Your task to perform on an android device: Go to Amazon Image 0: 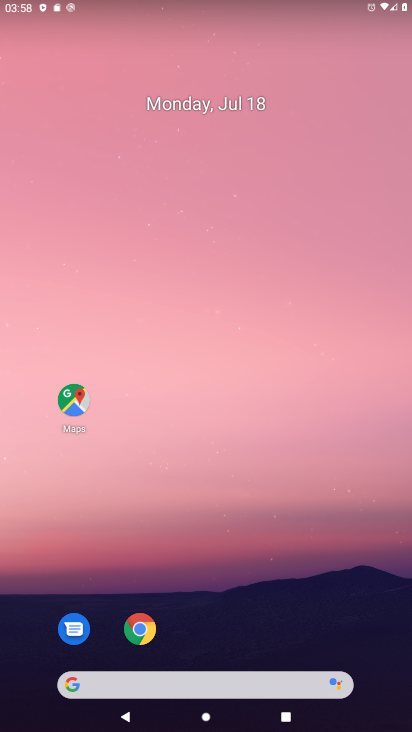
Step 0: click (135, 622)
Your task to perform on an android device: Go to Amazon Image 1: 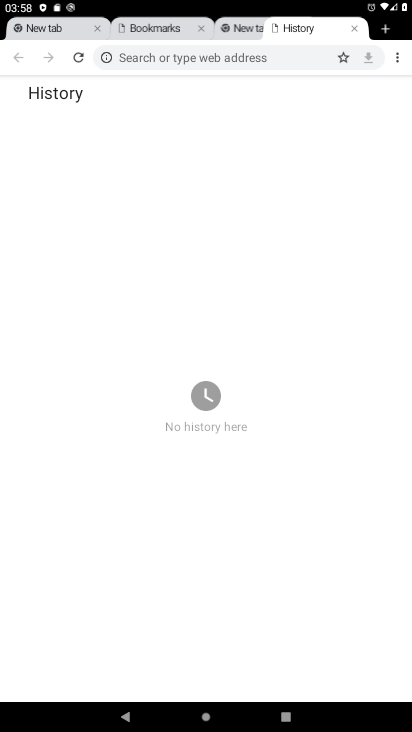
Step 1: click (393, 55)
Your task to perform on an android device: Go to Amazon Image 2: 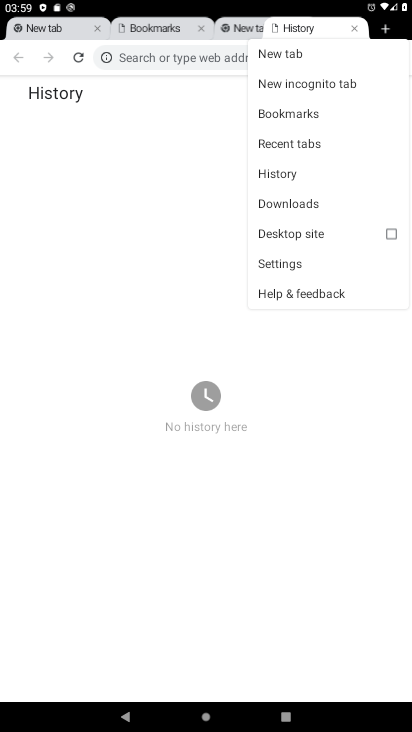
Step 2: click (177, 61)
Your task to perform on an android device: Go to Amazon Image 3: 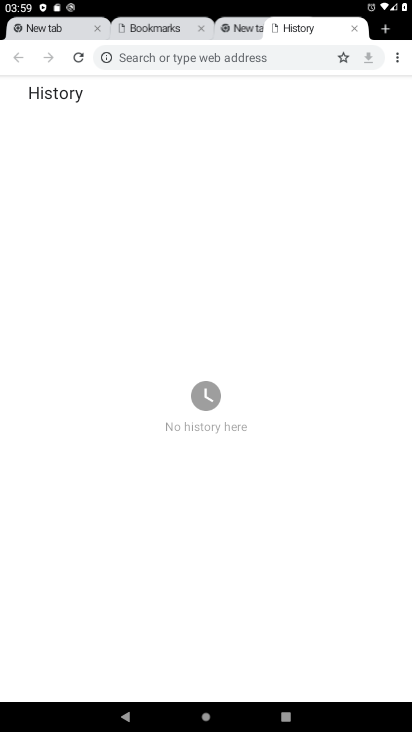
Step 3: click (180, 54)
Your task to perform on an android device: Go to Amazon Image 4: 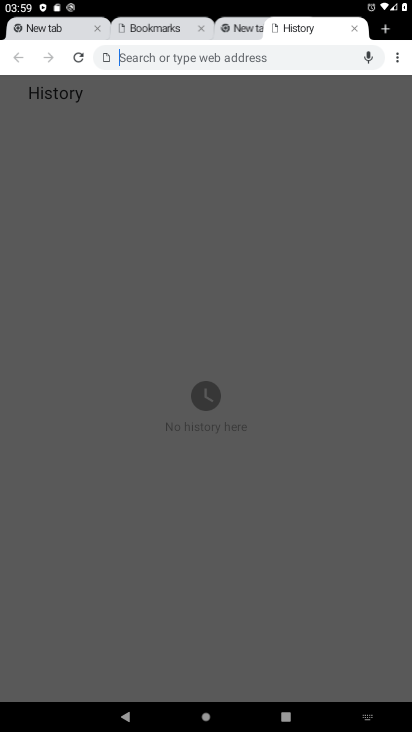
Step 4: type "Amazon"
Your task to perform on an android device: Go to Amazon Image 5: 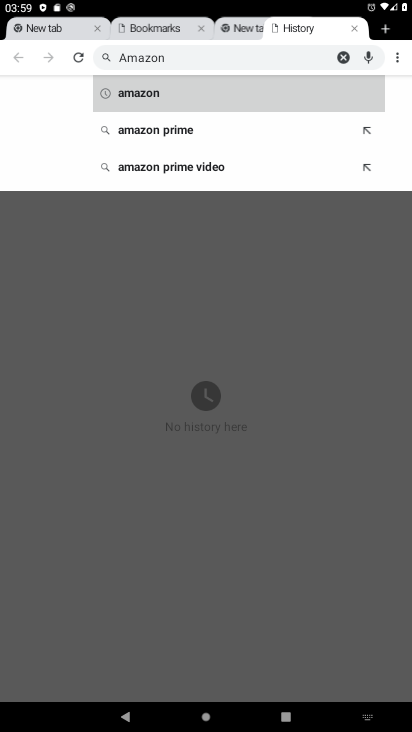
Step 5: click (164, 93)
Your task to perform on an android device: Go to Amazon Image 6: 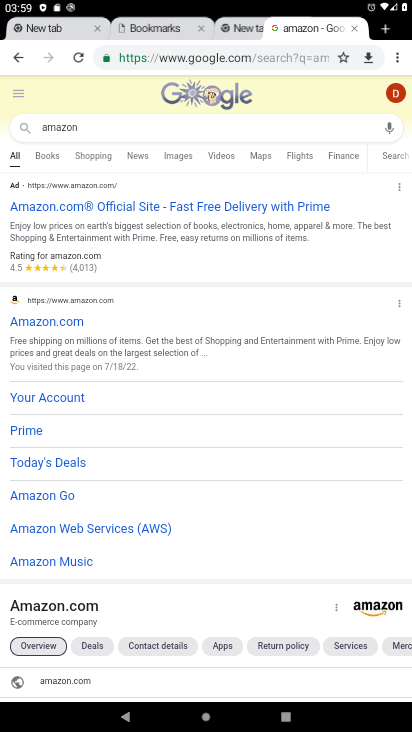
Step 6: task complete